Your task to perform on an android device: find which apps use the phone's location Image 0: 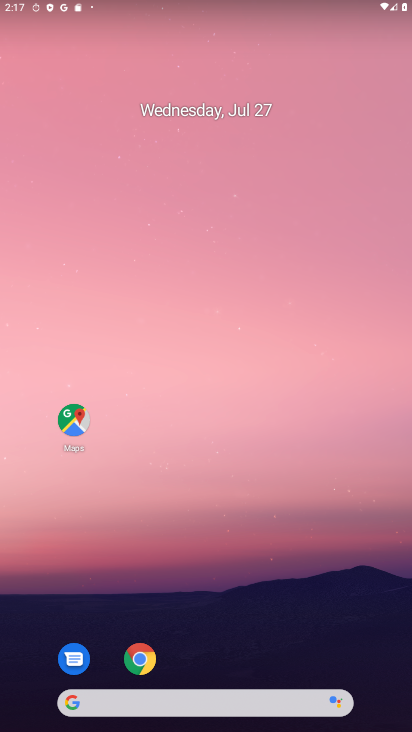
Step 0: drag from (286, 528) to (242, 82)
Your task to perform on an android device: find which apps use the phone's location Image 1: 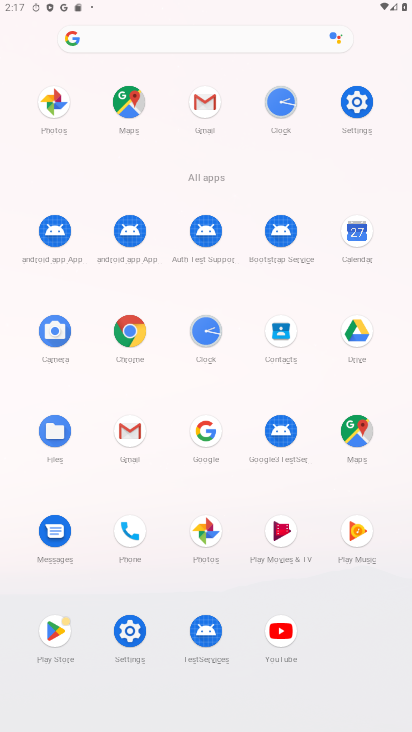
Step 1: click (132, 539)
Your task to perform on an android device: find which apps use the phone's location Image 2: 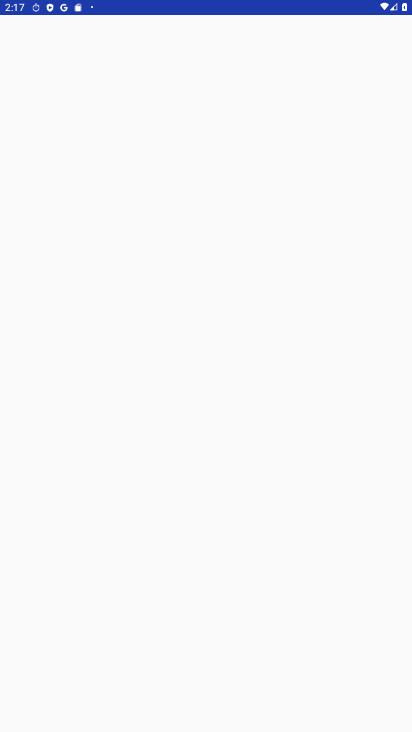
Step 2: press home button
Your task to perform on an android device: find which apps use the phone's location Image 3: 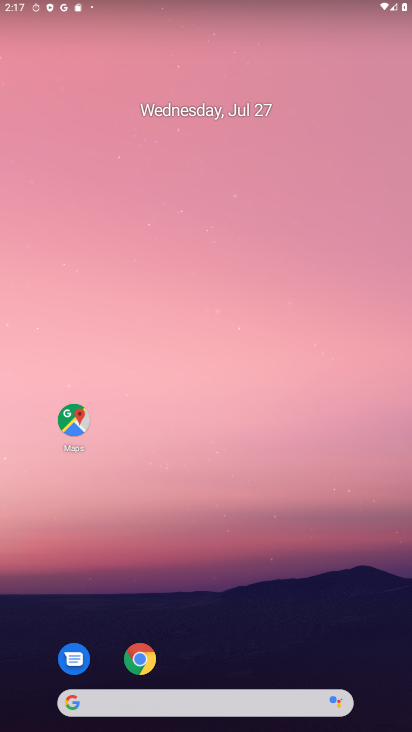
Step 3: drag from (289, 602) to (204, 3)
Your task to perform on an android device: find which apps use the phone's location Image 4: 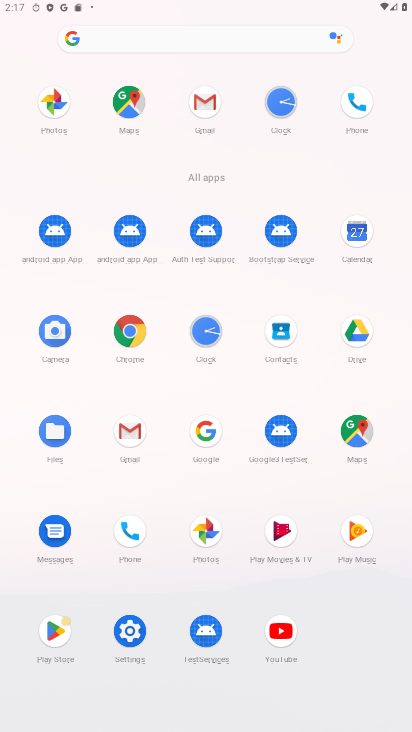
Step 4: click (137, 640)
Your task to perform on an android device: find which apps use the phone's location Image 5: 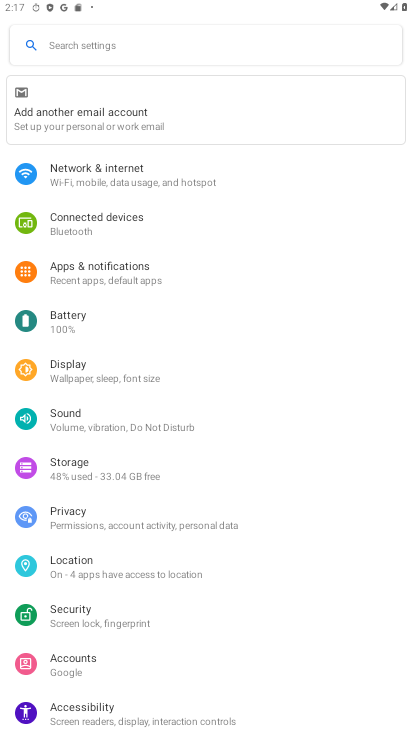
Step 5: click (66, 572)
Your task to perform on an android device: find which apps use the phone's location Image 6: 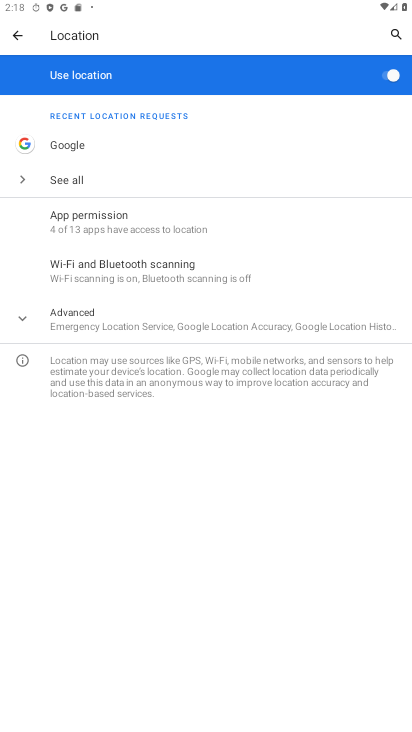
Step 6: click (90, 234)
Your task to perform on an android device: find which apps use the phone's location Image 7: 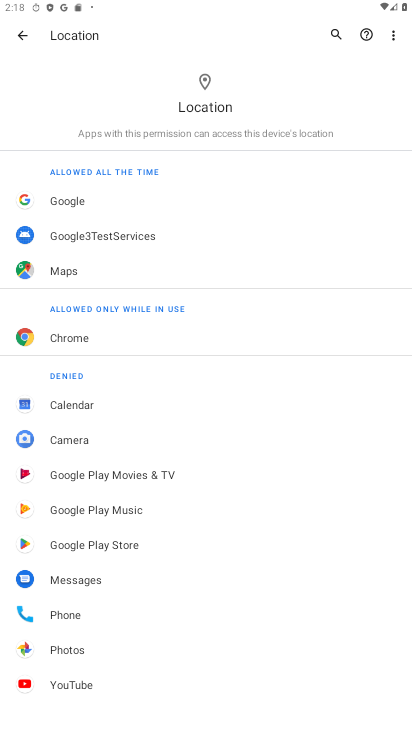
Step 7: task complete